Your task to perform on an android device: turn off airplane mode Image 0: 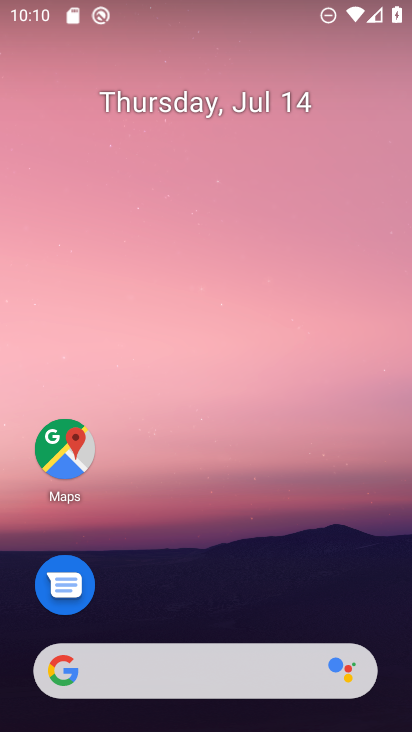
Step 0: drag from (231, 623) to (202, 0)
Your task to perform on an android device: turn off airplane mode Image 1: 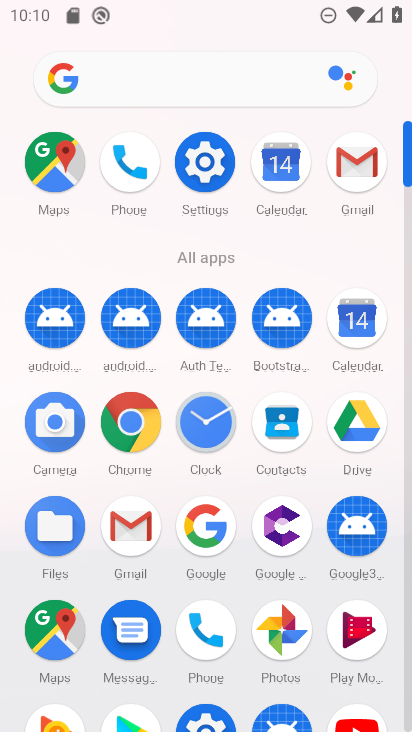
Step 1: click (209, 168)
Your task to perform on an android device: turn off airplane mode Image 2: 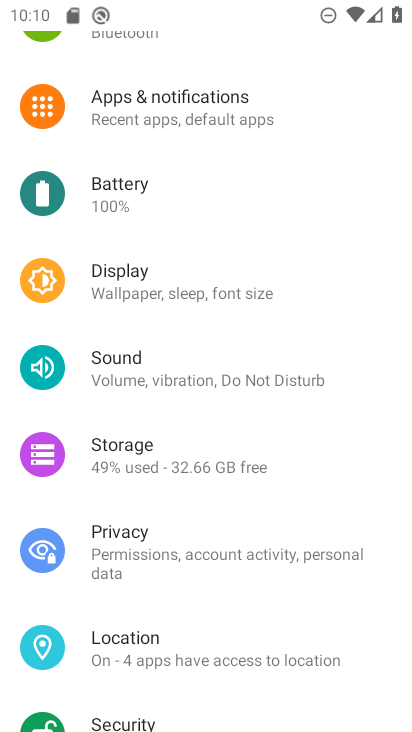
Step 2: drag from (209, 168) to (167, 530)
Your task to perform on an android device: turn off airplane mode Image 3: 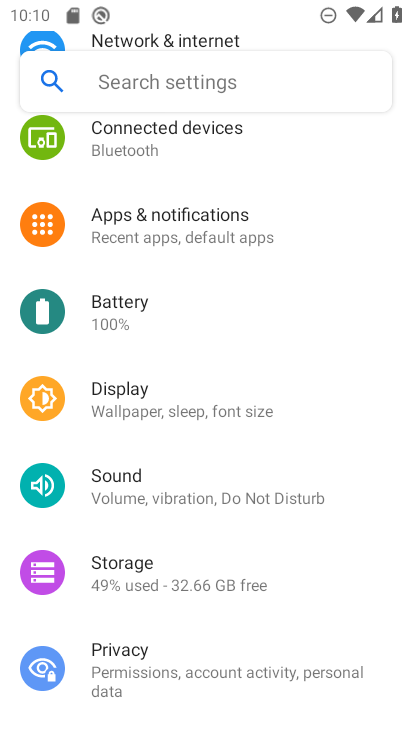
Step 3: drag from (223, 138) to (239, 412)
Your task to perform on an android device: turn off airplane mode Image 4: 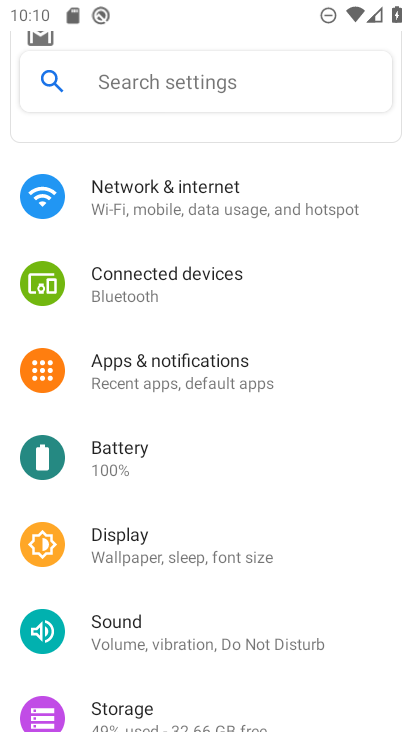
Step 4: click (180, 205)
Your task to perform on an android device: turn off airplane mode Image 5: 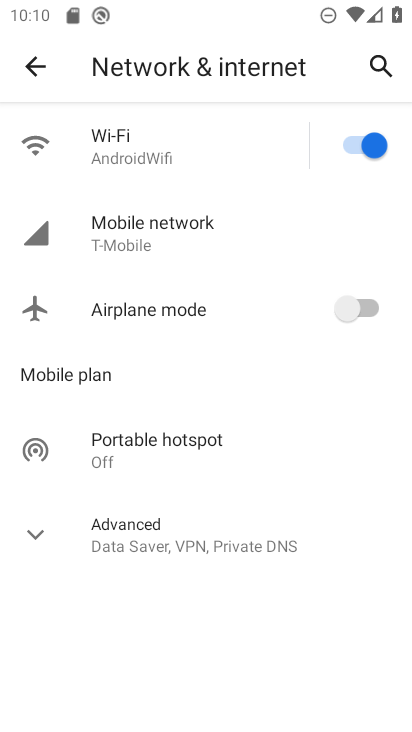
Step 5: task complete